Your task to perform on an android device: turn off notifications settings in the gmail app Image 0: 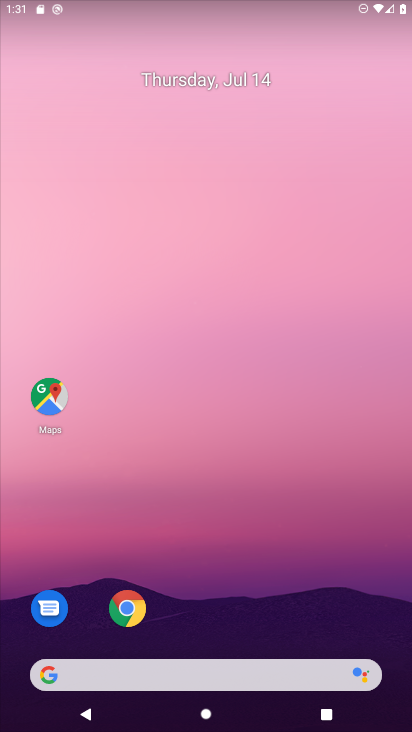
Step 0: drag from (238, 723) to (230, 120)
Your task to perform on an android device: turn off notifications settings in the gmail app Image 1: 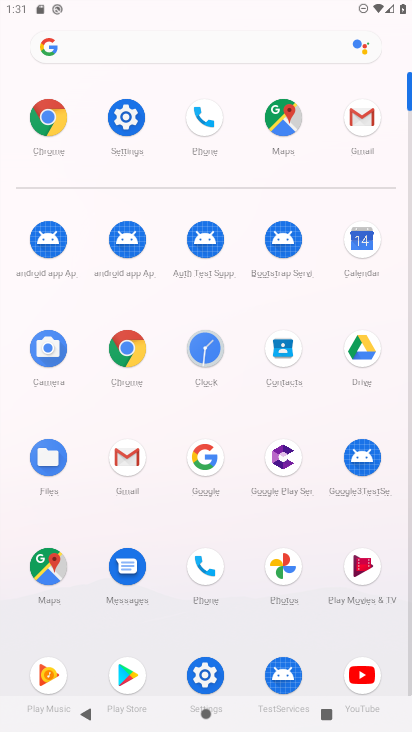
Step 1: click (127, 450)
Your task to perform on an android device: turn off notifications settings in the gmail app Image 2: 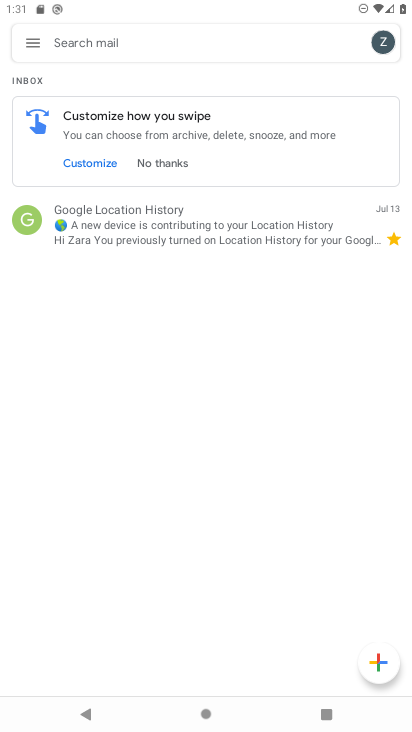
Step 2: click (29, 40)
Your task to perform on an android device: turn off notifications settings in the gmail app Image 3: 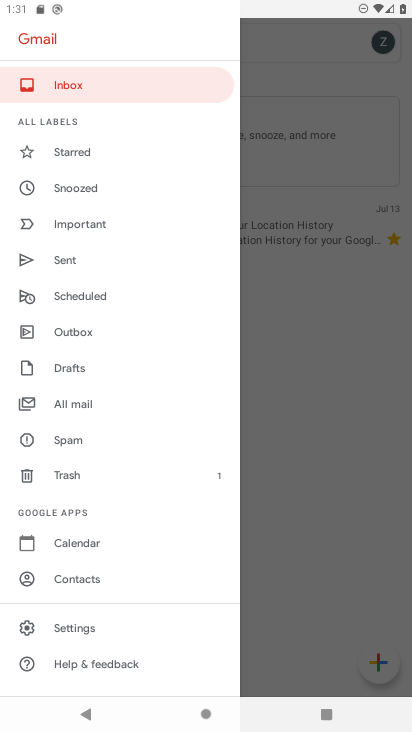
Step 3: click (70, 624)
Your task to perform on an android device: turn off notifications settings in the gmail app Image 4: 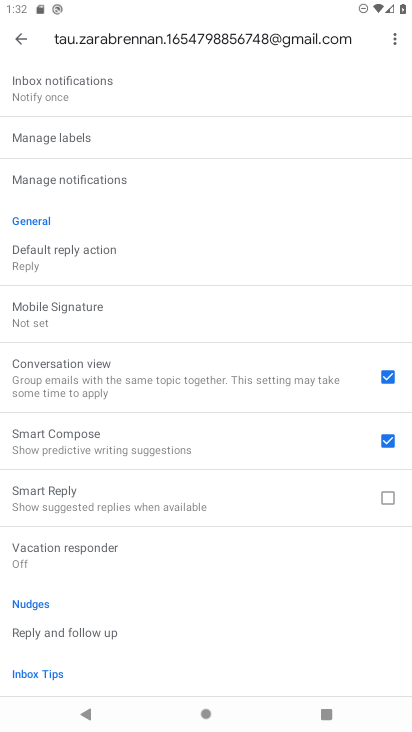
Step 4: drag from (140, 96) to (158, 515)
Your task to perform on an android device: turn off notifications settings in the gmail app Image 5: 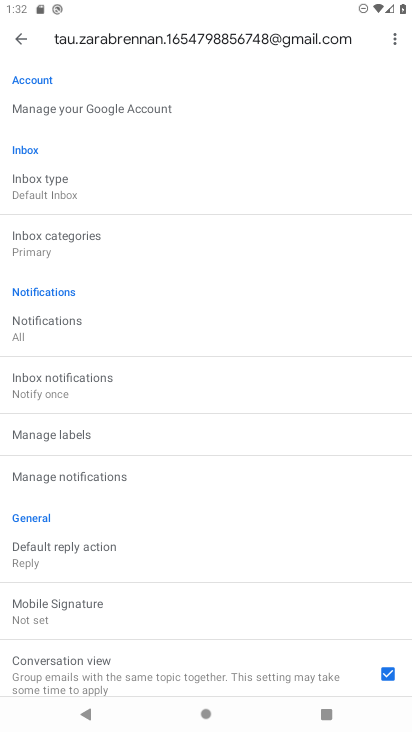
Step 5: click (46, 321)
Your task to perform on an android device: turn off notifications settings in the gmail app Image 6: 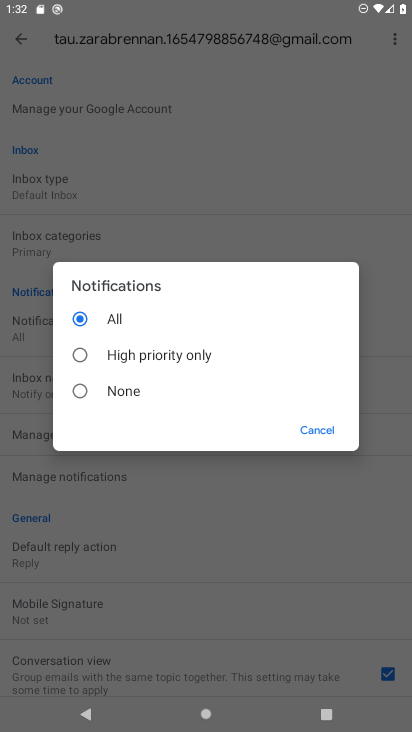
Step 6: click (82, 392)
Your task to perform on an android device: turn off notifications settings in the gmail app Image 7: 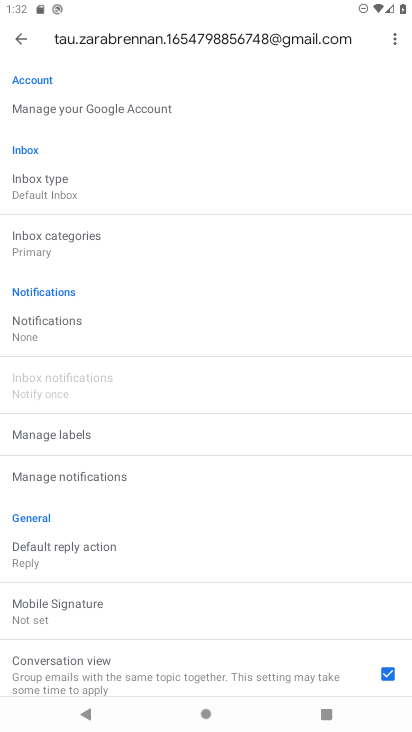
Step 7: task complete